Your task to perform on an android device: Open eBay Image 0: 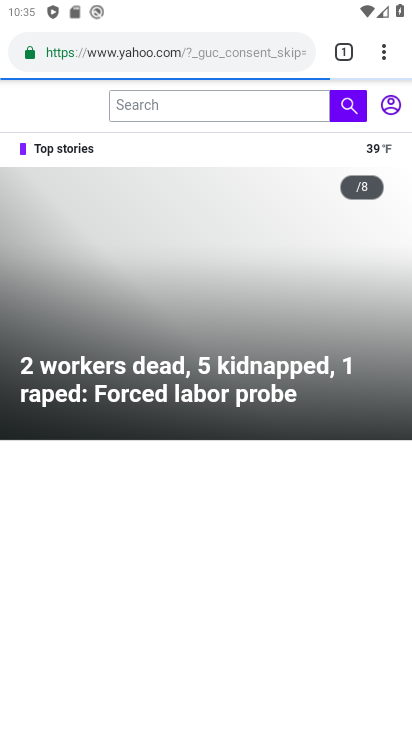
Step 0: press home button
Your task to perform on an android device: Open eBay Image 1: 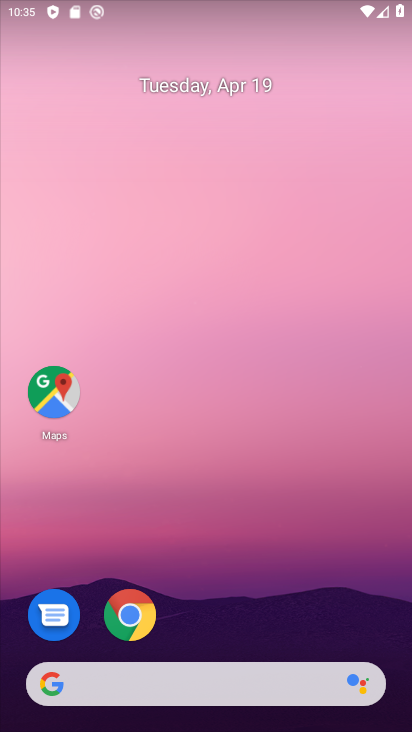
Step 1: click (185, 684)
Your task to perform on an android device: Open eBay Image 2: 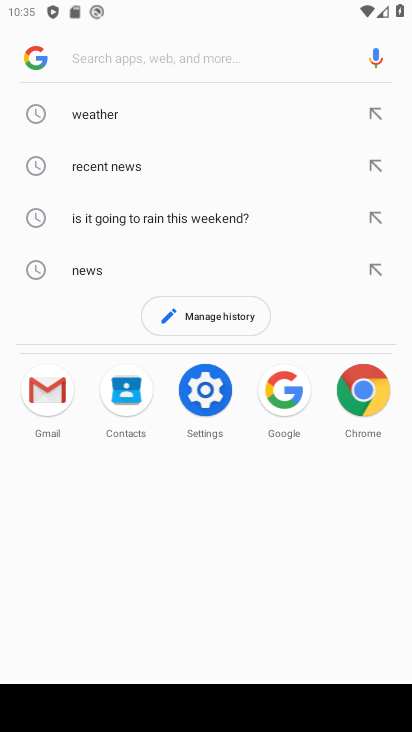
Step 2: type "ebay"
Your task to perform on an android device: Open eBay Image 3: 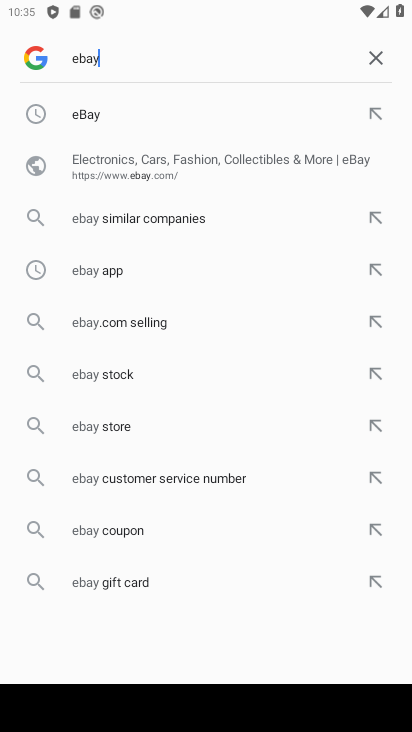
Step 3: click (123, 119)
Your task to perform on an android device: Open eBay Image 4: 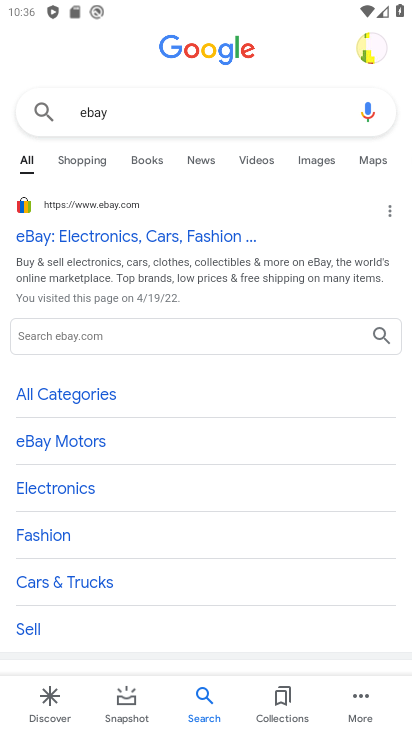
Step 4: task complete